Your task to perform on an android device: Open maps Image 0: 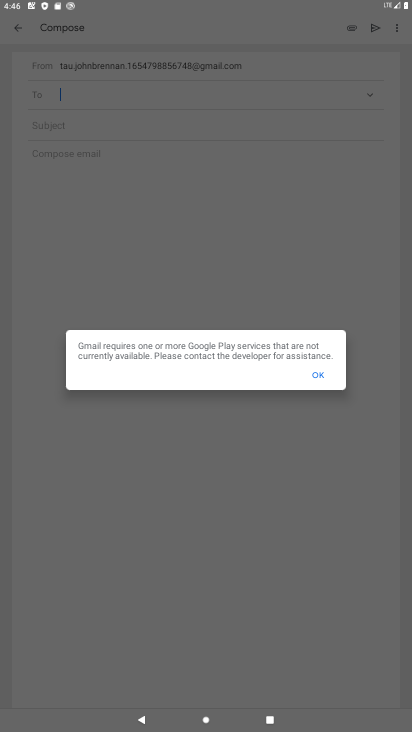
Step 0: click (313, 377)
Your task to perform on an android device: Open maps Image 1: 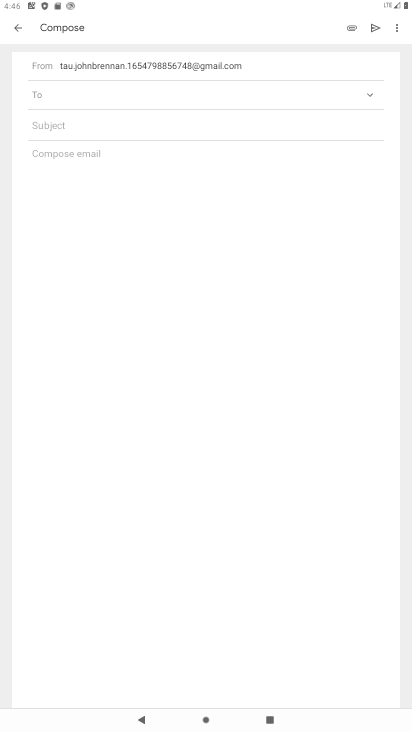
Step 1: click (16, 25)
Your task to perform on an android device: Open maps Image 2: 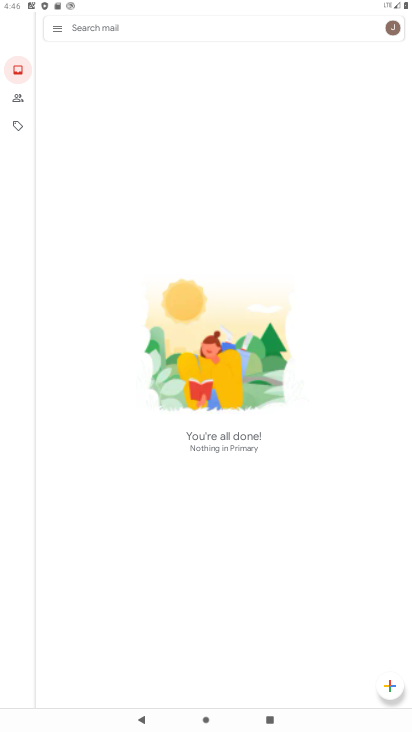
Step 2: press back button
Your task to perform on an android device: Open maps Image 3: 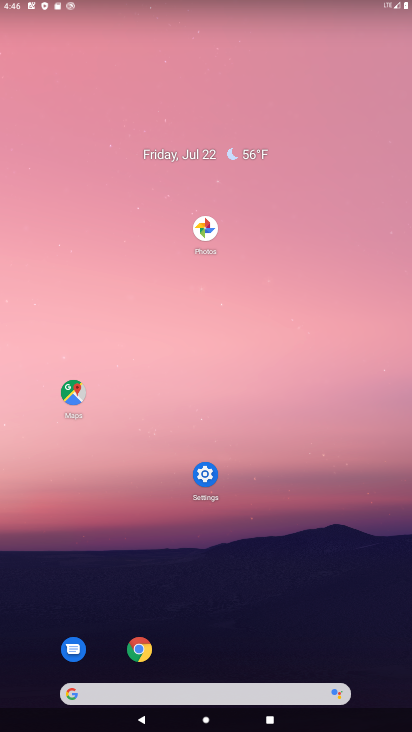
Step 3: press home button
Your task to perform on an android device: Open maps Image 4: 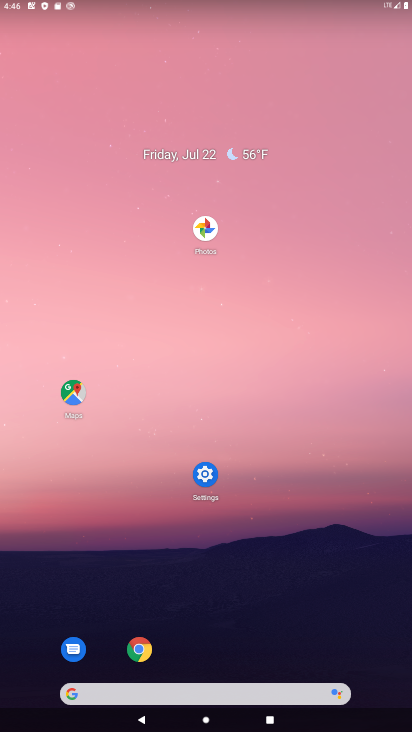
Step 4: click (119, 108)
Your task to perform on an android device: Open maps Image 5: 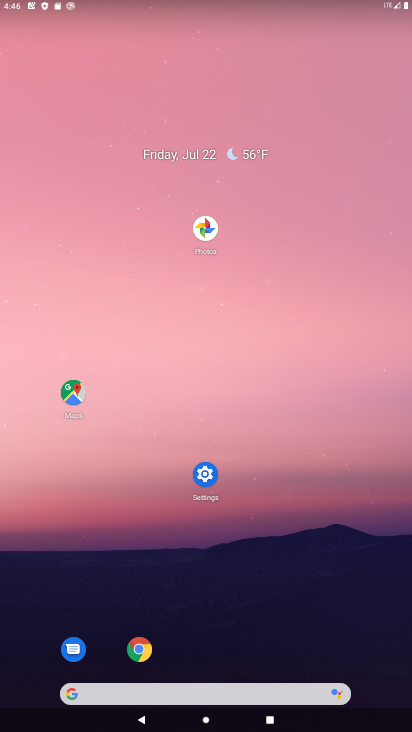
Step 5: drag from (193, 250) to (175, 99)
Your task to perform on an android device: Open maps Image 6: 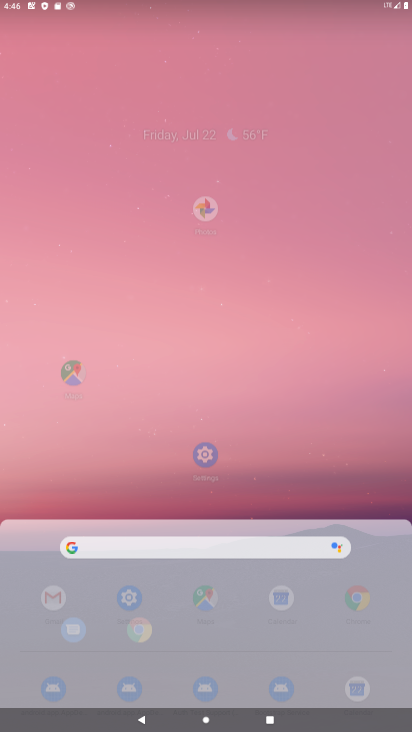
Step 6: drag from (193, 452) to (184, 44)
Your task to perform on an android device: Open maps Image 7: 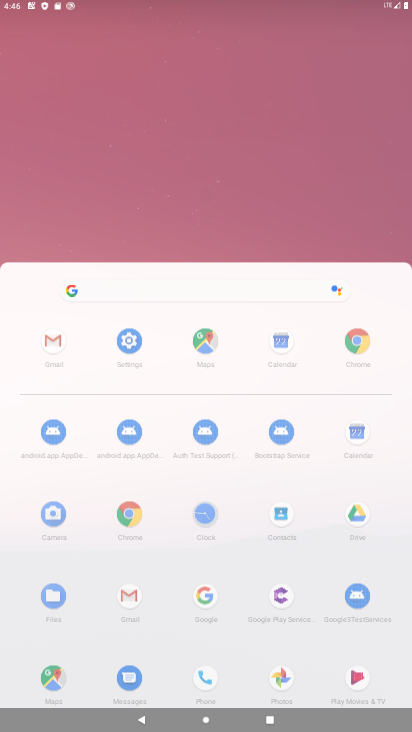
Step 7: drag from (218, 348) to (201, 48)
Your task to perform on an android device: Open maps Image 8: 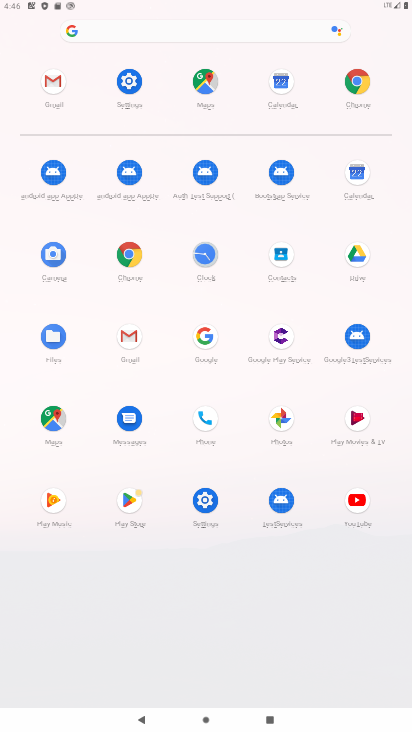
Step 8: click (49, 422)
Your task to perform on an android device: Open maps Image 9: 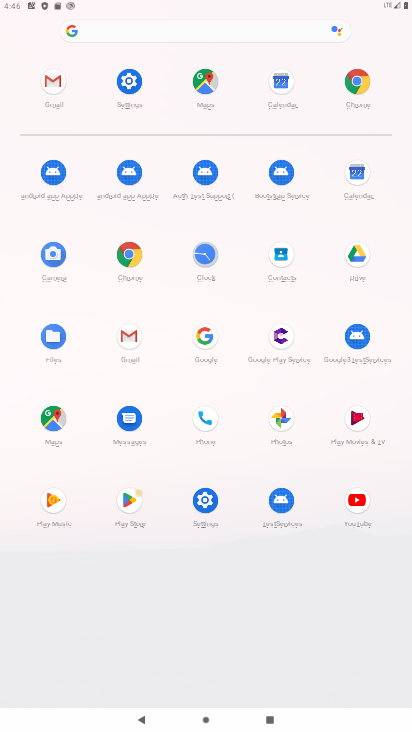
Step 9: click (49, 422)
Your task to perform on an android device: Open maps Image 10: 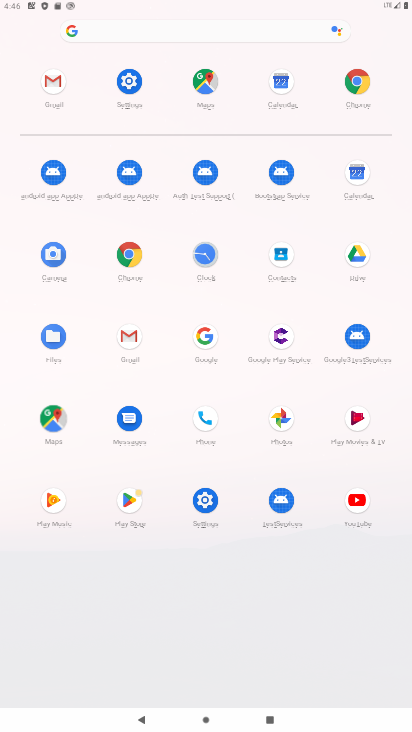
Step 10: click (56, 418)
Your task to perform on an android device: Open maps Image 11: 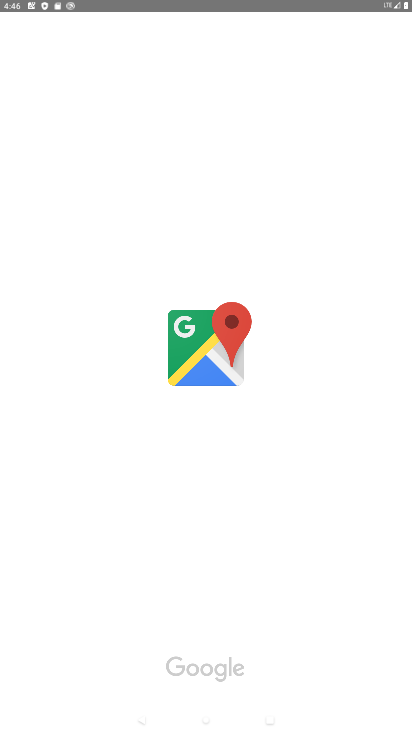
Step 11: click (56, 418)
Your task to perform on an android device: Open maps Image 12: 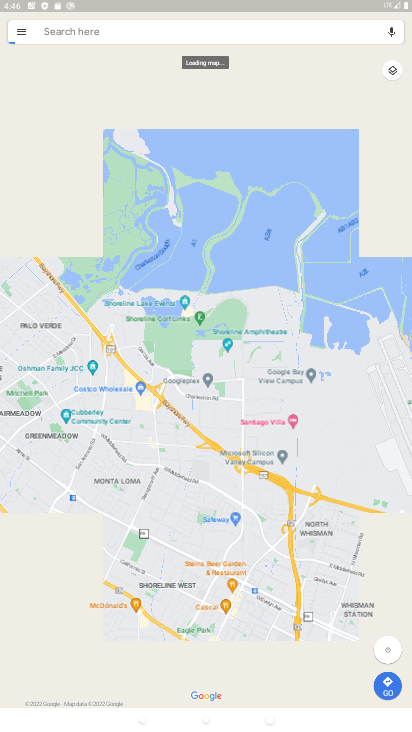
Step 12: task complete